Your task to perform on an android device: show emergency info Image 0: 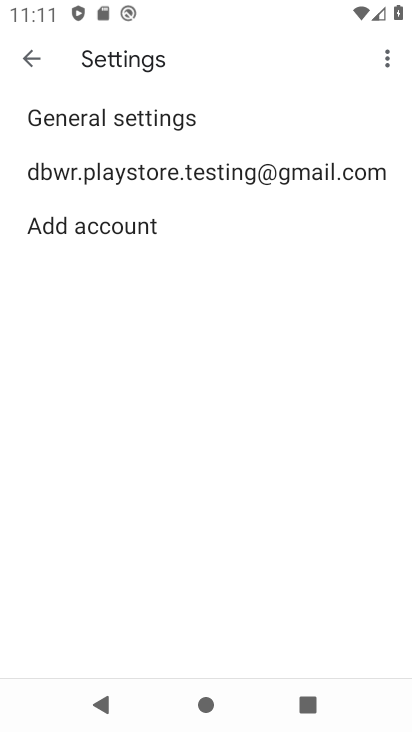
Step 0: click (158, 162)
Your task to perform on an android device: show emergency info Image 1: 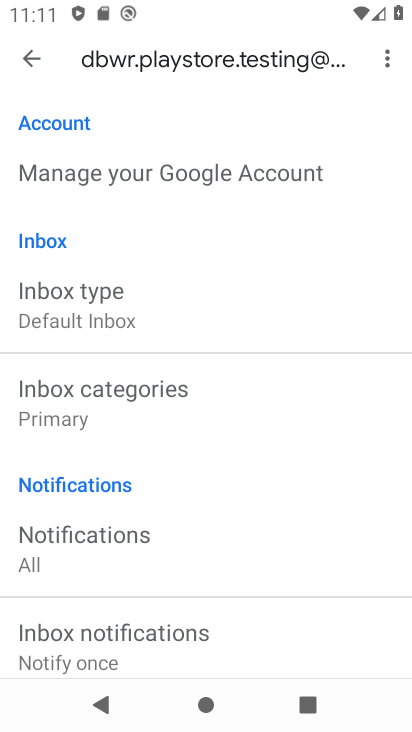
Step 1: drag from (341, 532) to (323, 187)
Your task to perform on an android device: show emergency info Image 2: 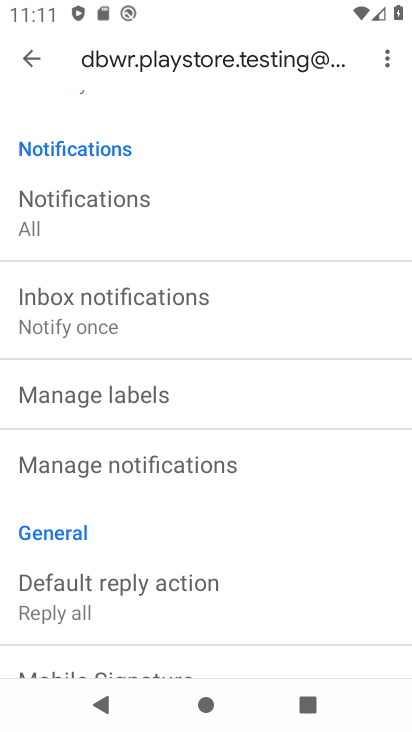
Step 2: drag from (294, 487) to (280, 98)
Your task to perform on an android device: show emergency info Image 3: 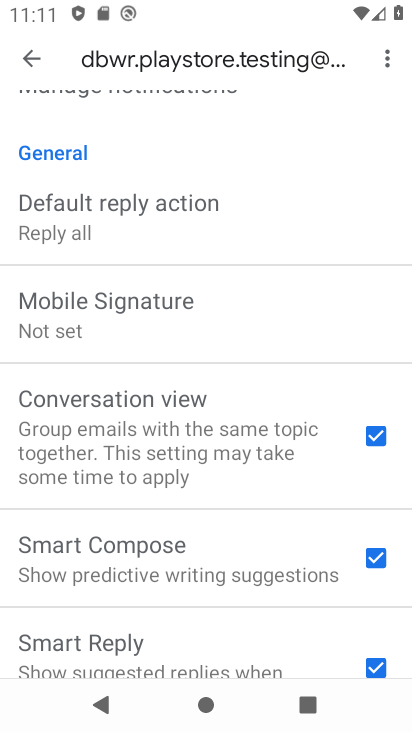
Step 3: drag from (272, 133) to (251, 338)
Your task to perform on an android device: show emergency info Image 4: 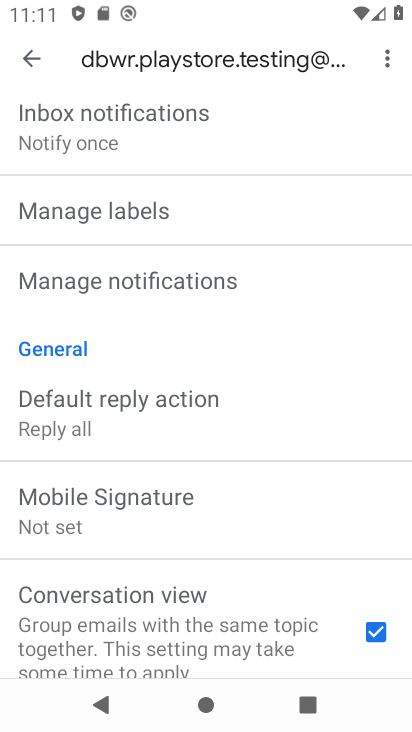
Step 4: press back button
Your task to perform on an android device: show emergency info Image 5: 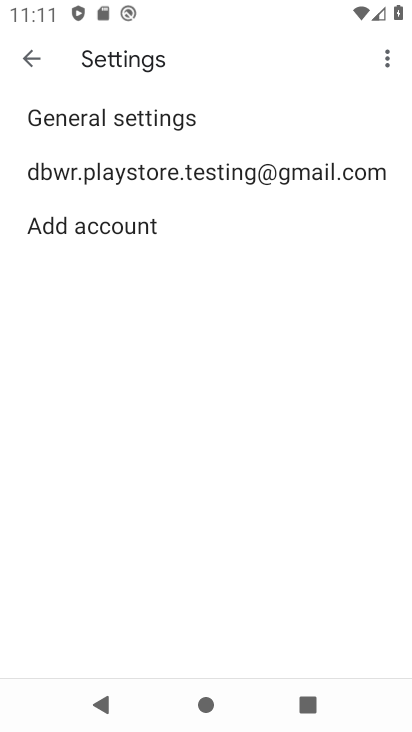
Step 5: press back button
Your task to perform on an android device: show emergency info Image 6: 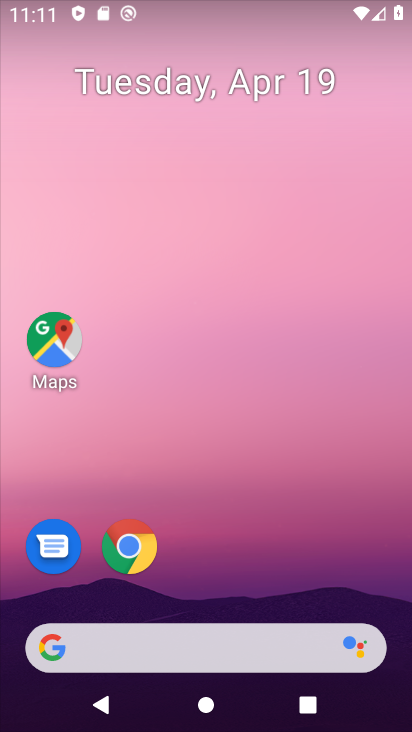
Step 6: drag from (320, 539) to (286, 27)
Your task to perform on an android device: show emergency info Image 7: 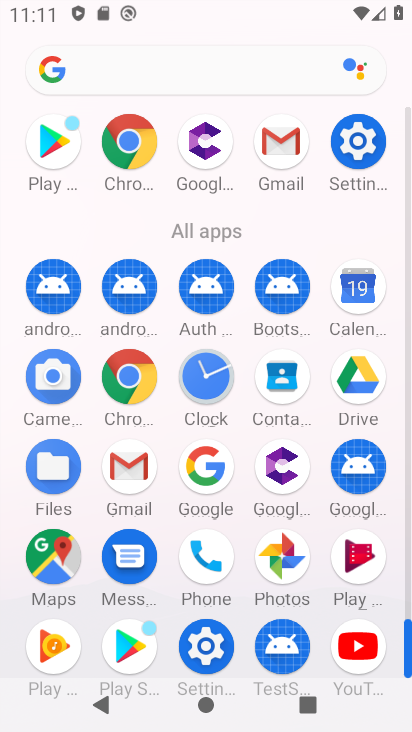
Step 7: click (363, 135)
Your task to perform on an android device: show emergency info Image 8: 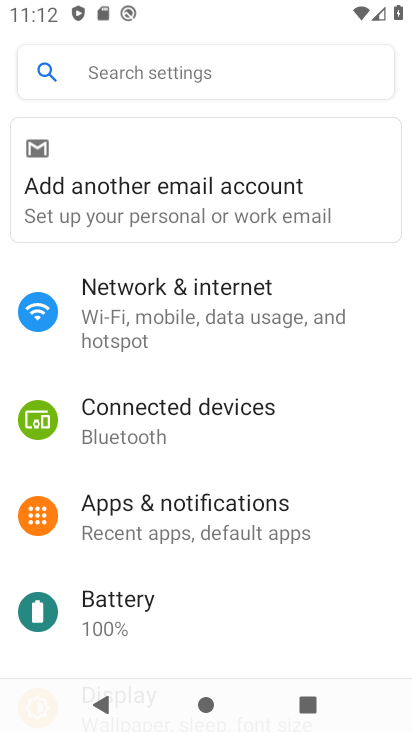
Step 8: drag from (319, 553) to (290, 76)
Your task to perform on an android device: show emergency info Image 9: 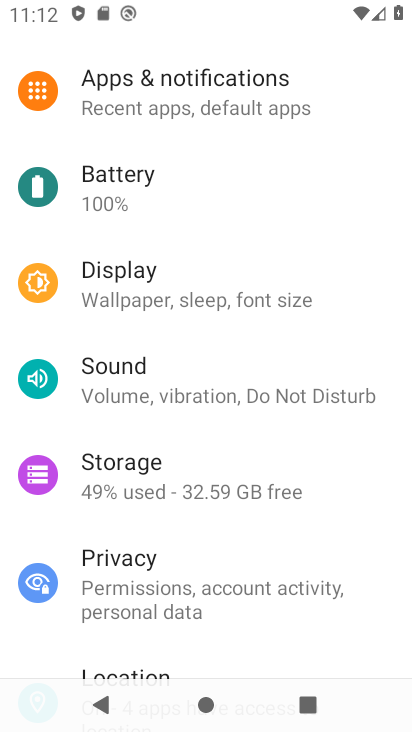
Step 9: drag from (316, 476) to (298, 50)
Your task to perform on an android device: show emergency info Image 10: 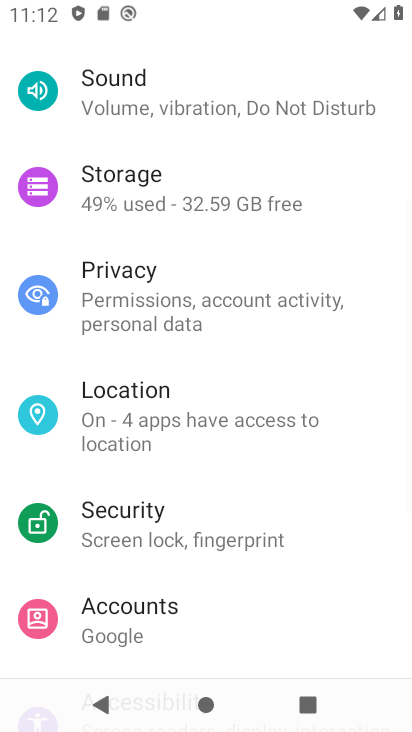
Step 10: drag from (261, 507) to (274, 101)
Your task to perform on an android device: show emergency info Image 11: 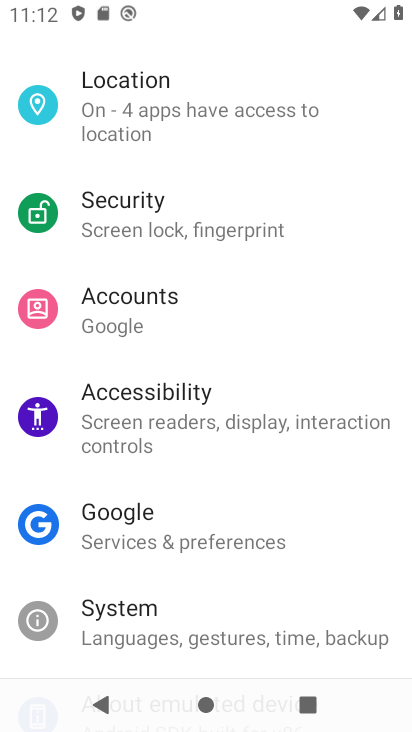
Step 11: drag from (256, 393) to (271, 105)
Your task to perform on an android device: show emergency info Image 12: 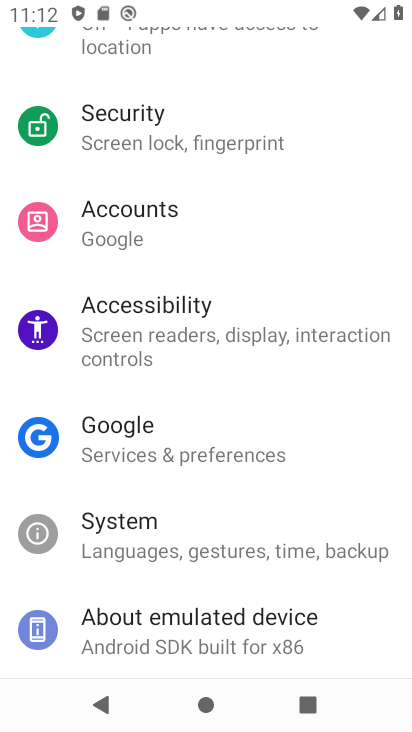
Step 12: click (240, 631)
Your task to perform on an android device: show emergency info Image 13: 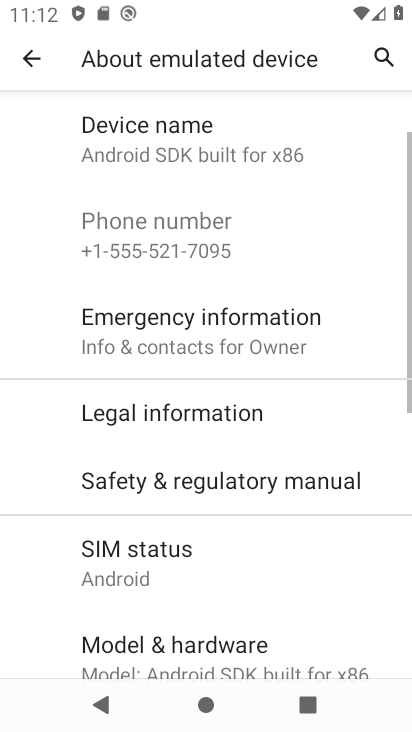
Step 13: drag from (270, 527) to (262, 205)
Your task to perform on an android device: show emergency info Image 14: 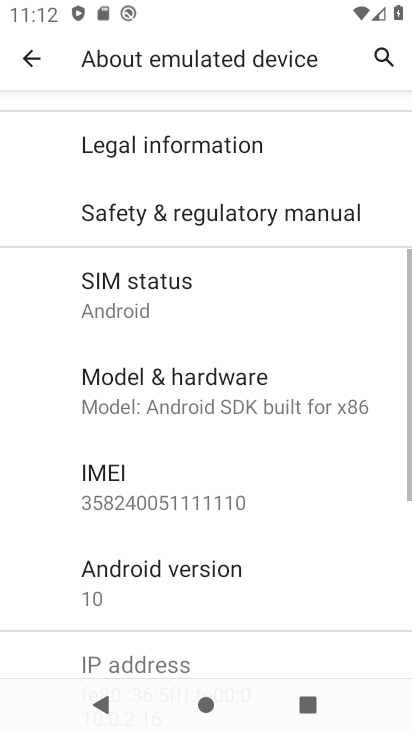
Step 14: drag from (259, 195) to (271, 420)
Your task to perform on an android device: show emergency info Image 15: 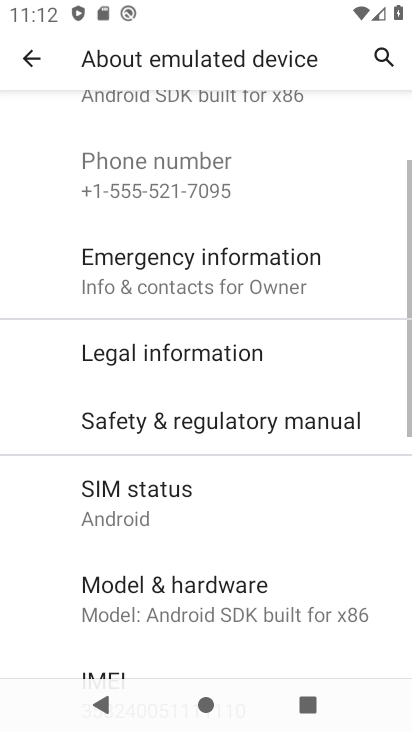
Step 15: click (239, 282)
Your task to perform on an android device: show emergency info Image 16: 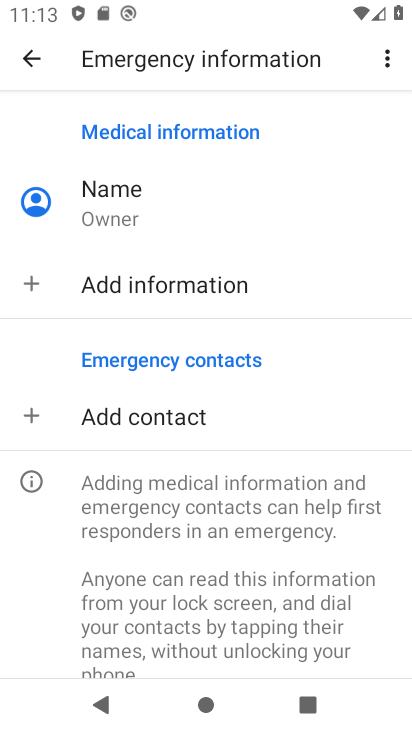
Step 16: task complete